Your task to perform on an android device: add a contact in the contacts app Image 0: 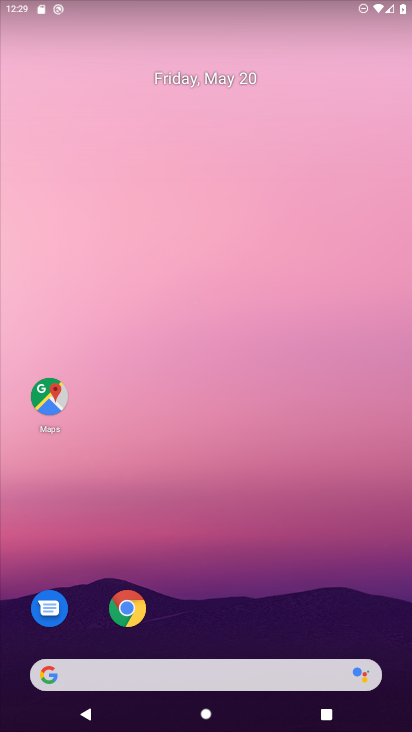
Step 0: drag from (330, 609) to (217, 3)
Your task to perform on an android device: add a contact in the contacts app Image 1: 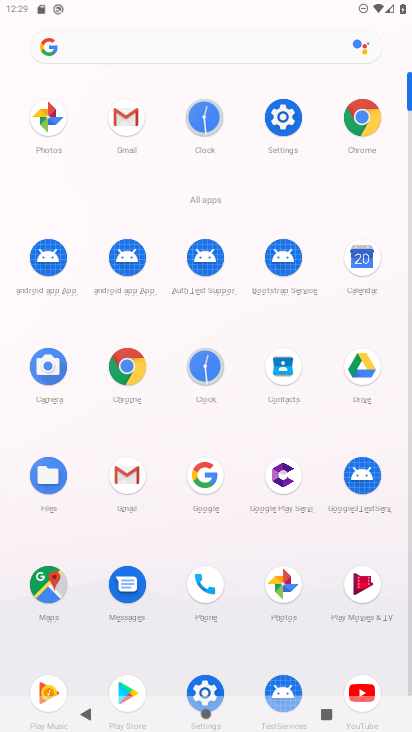
Step 1: click (266, 366)
Your task to perform on an android device: add a contact in the contacts app Image 2: 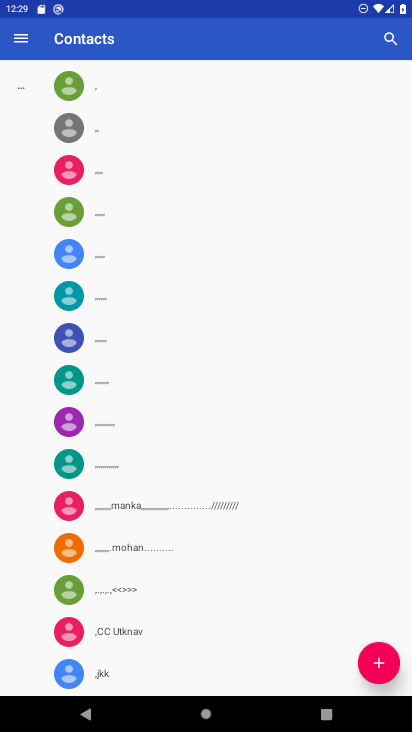
Step 2: click (383, 637)
Your task to perform on an android device: add a contact in the contacts app Image 3: 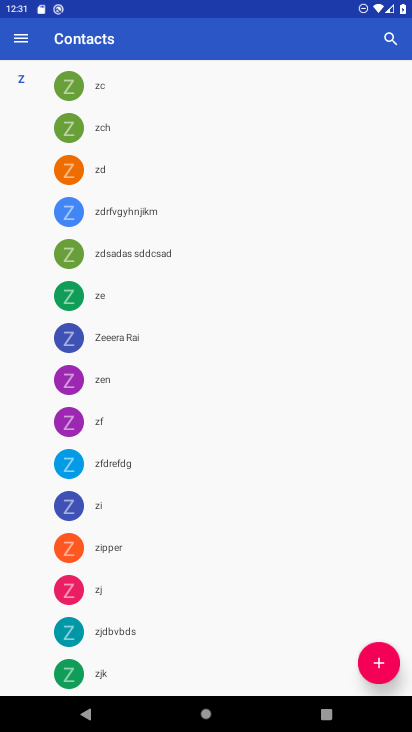
Step 3: click (391, 659)
Your task to perform on an android device: add a contact in the contacts app Image 4: 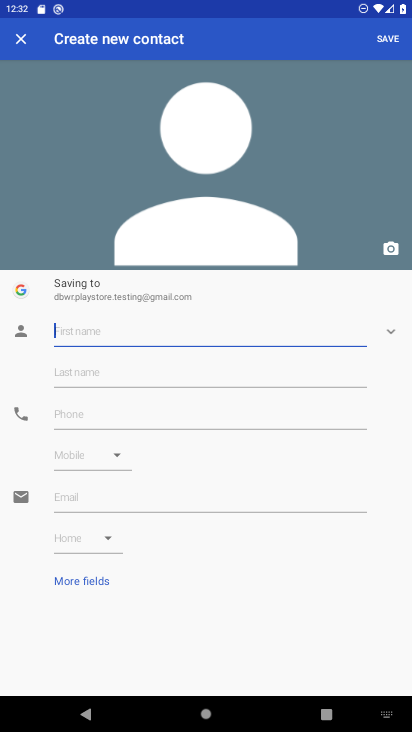
Step 4: type "dfghjk"
Your task to perform on an android device: add a contact in the contacts app Image 5: 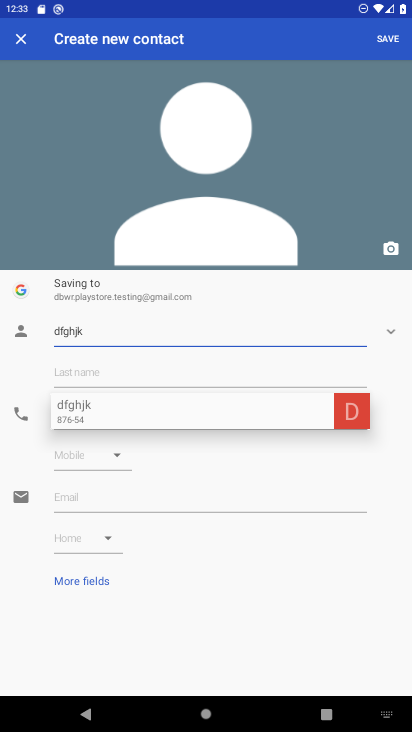
Step 5: click (388, 336)
Your task to perform on an android device: add a contact in the contacts app Image 6: 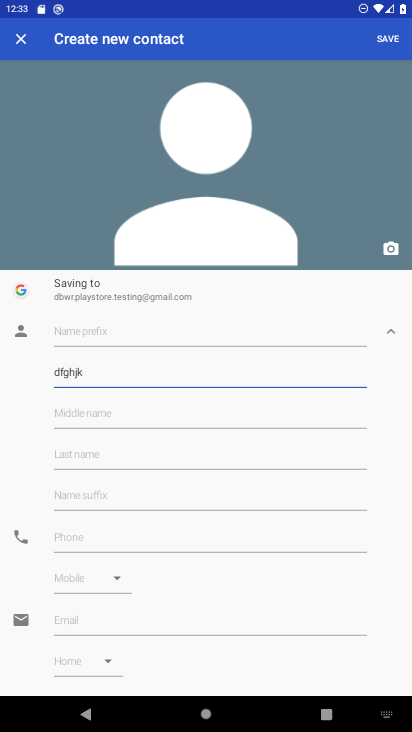
Step 6: click (396, 330)
Your task to perform on an android device: add a contact in the contacts app Image 7: 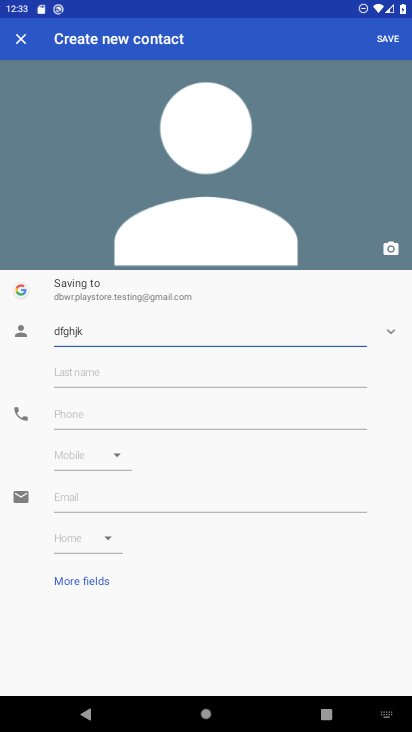
Step 7: click (233, 412)
Your task to perform on an android device: add a contact in the contacts app Image 8: 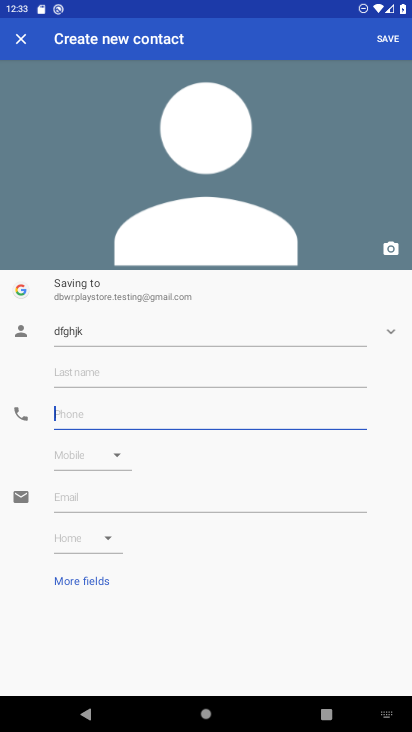
Step 8: type "456432123456789"
Your task to perform on an android device: add a contact in the contacts app Image 9: 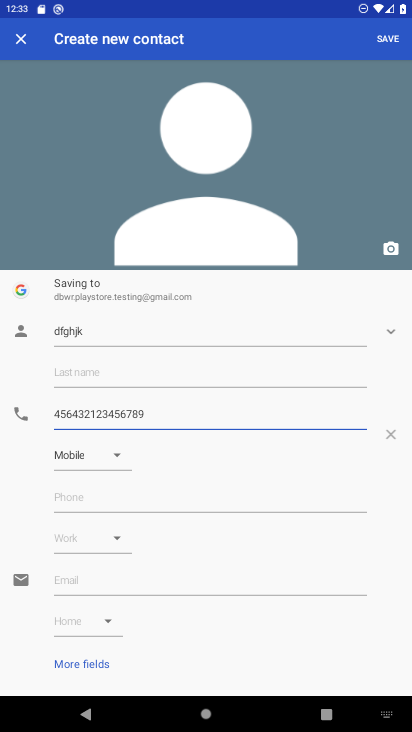
Step 9: click (394, 38)
Your task to perform on an android device: add a contact in the contacts app Image 10: 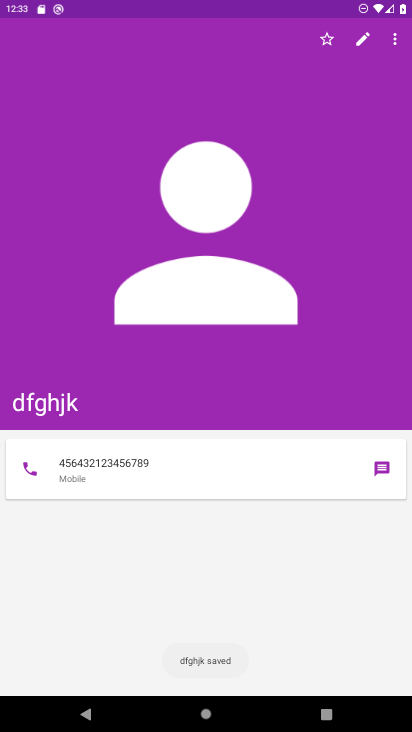
Step 10: task complete